Your task to perform on an android device: set an alarm Image 0: 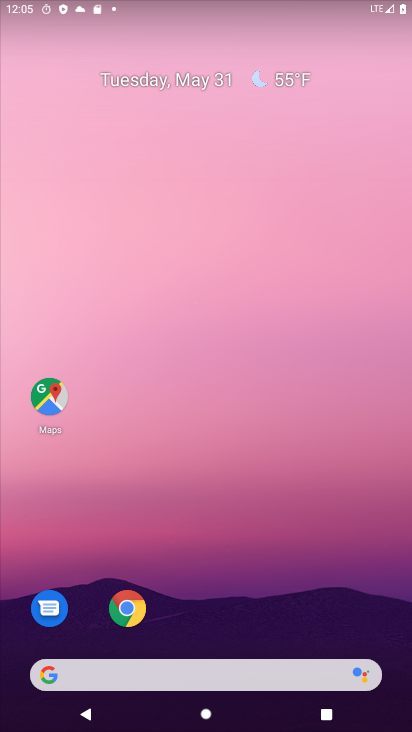
Step 0: drag from (293, 652) to (277, 4)
Your task to perform on an android device: set an alarm Image 1: 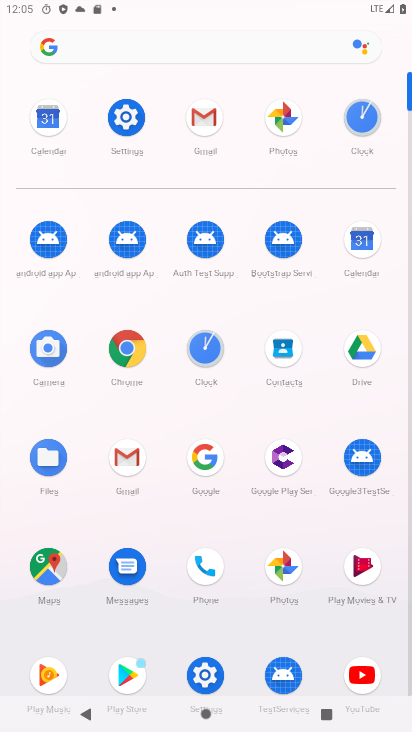
Step 1: click (358, 112)
Your task to perform on an android device: set an alarm Image 2: 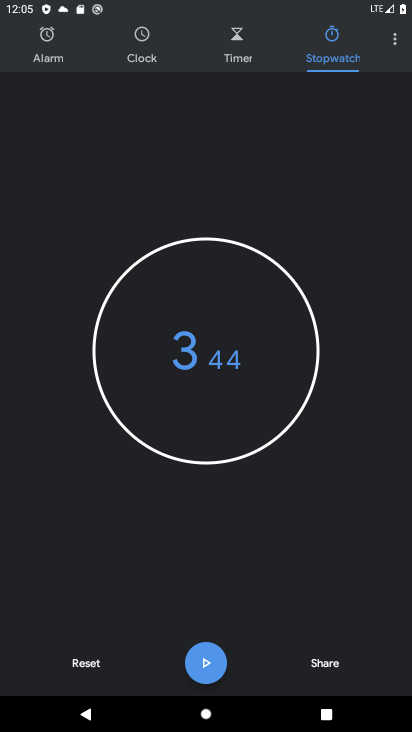
Step 2: click (53, 52)
Your task to perform on an android device: set an alarm Image 3: 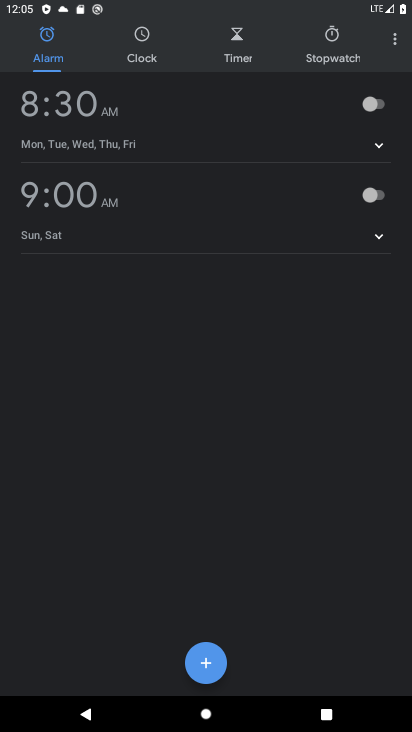
Step 3: click (205, 666)
Your task to perform on an android device: set an alarm Image 4: 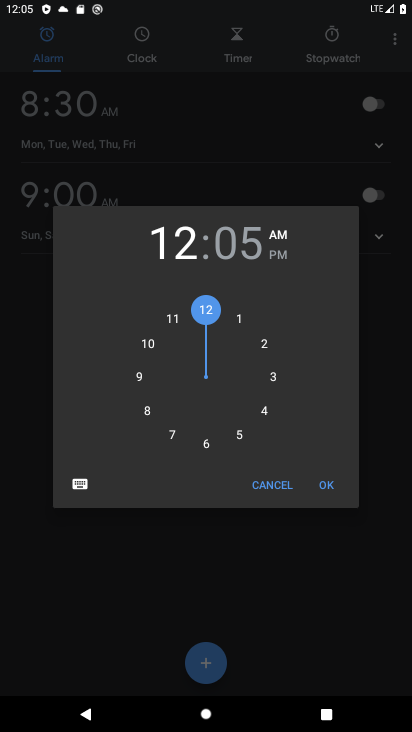
Step 4: click (264, 415)
Your task to perform on an android device: set an alarm Image 5: 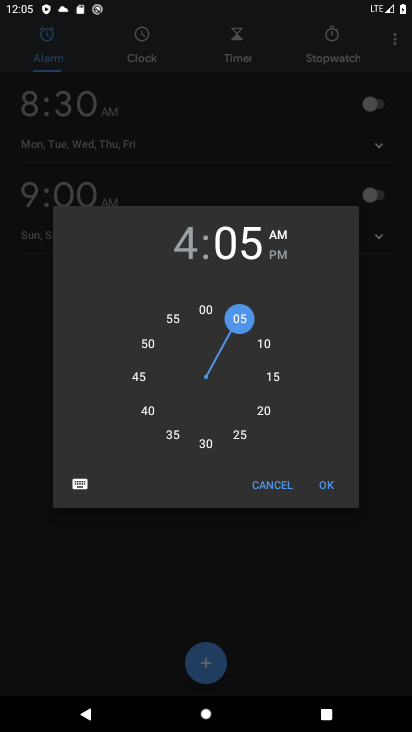
Step 5: click (208, 312)
Your task to perform on an android device: set an alarm Image 6: 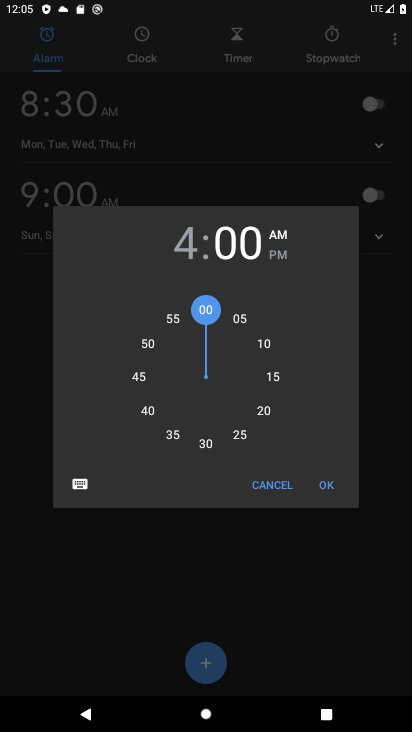
Step 6: click (332, 492)
Your task to perform on an android device: set an alarm Image 7: 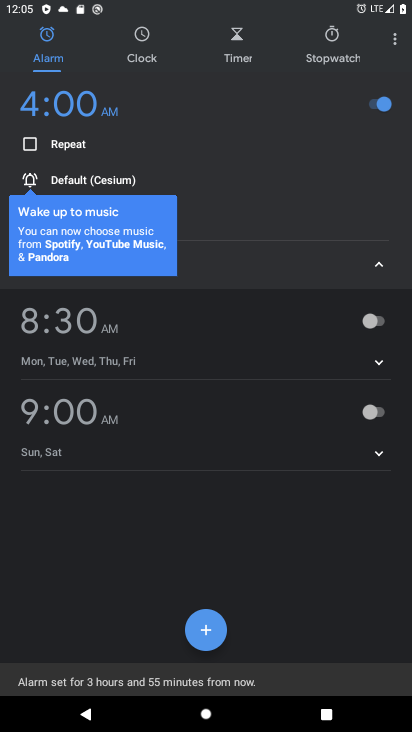
Step 7: task complete